Your task to perform on an android device: toggle improve location accuracy Image 0: 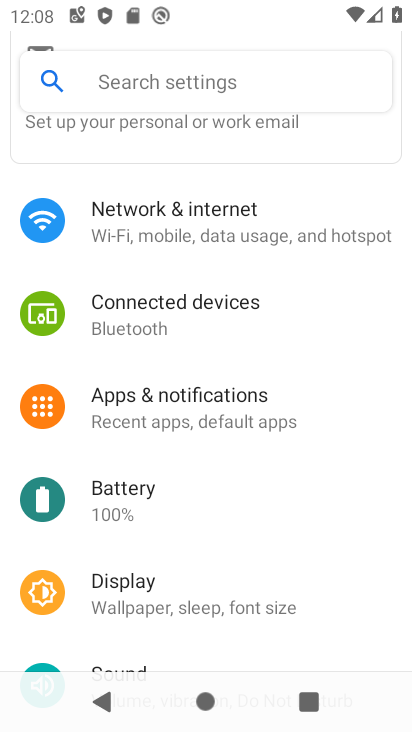
Step 0: drag from (215, 533) to (244, 85)
Your task to perform on an android device: toggle improve location accuracy Image 1: 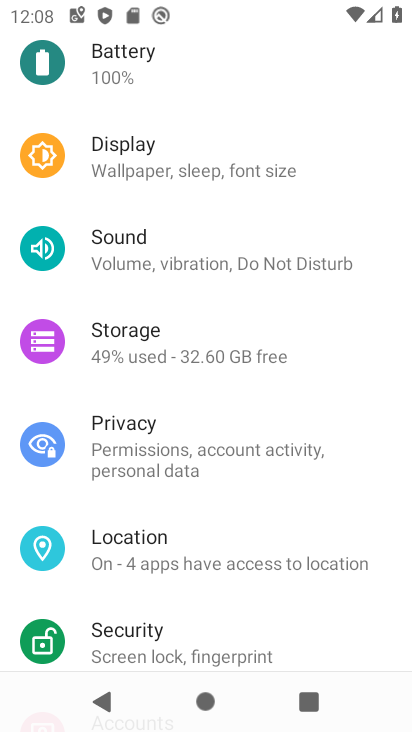
Step 1: click (197, 559)
Your task to perform on an android device: toggle improve location accuracy Image 2: 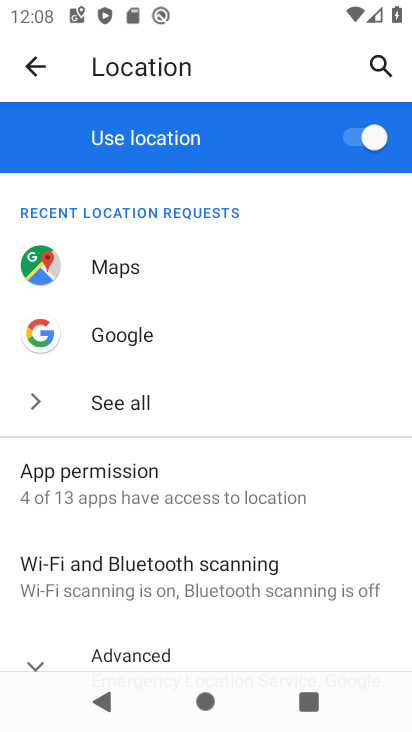
Step 2: drag from (131, 561) to (167, 401)
Your task to perform on an android device: toggle improve location accuracy Image 3: 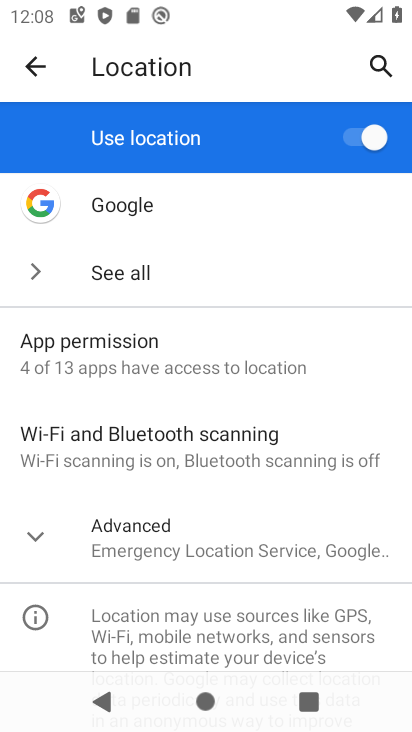
Step 3: click (32, 529)
Your task to perform on an android device: toggle improve location accuracy Image 4: 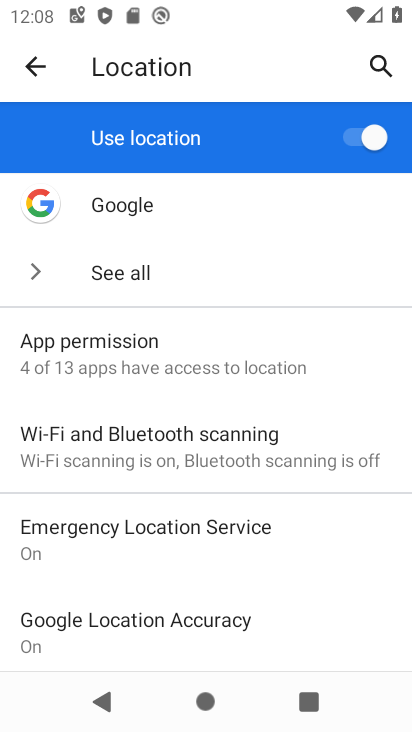
Step 4: click (155, 619)
Your task to perform on an android device: toggle improve location accuracy Image 5: 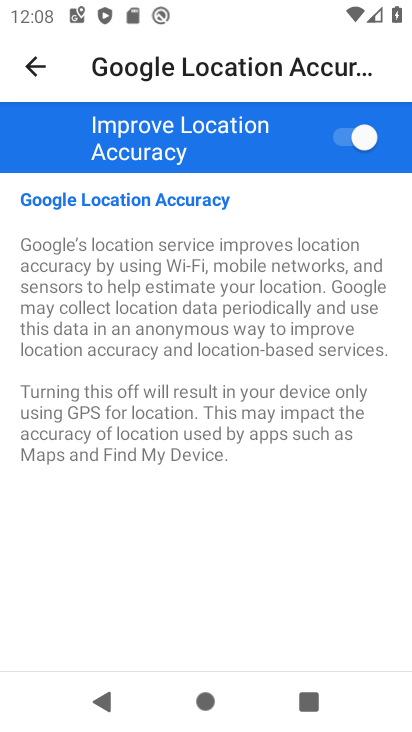
Step 5: click (346, 136)
Your task to perform on an android device: toggle improve location accuracy Image 6: 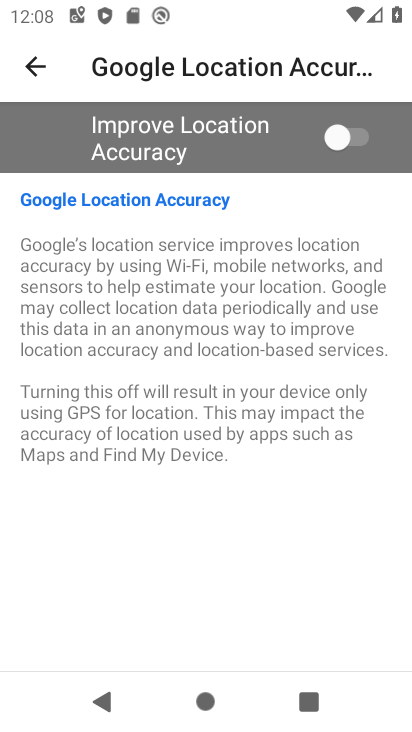
Step 6: task complete